Your task to perform on an android device: Search for the best rated lawnmower on Lowes.com Image 0: 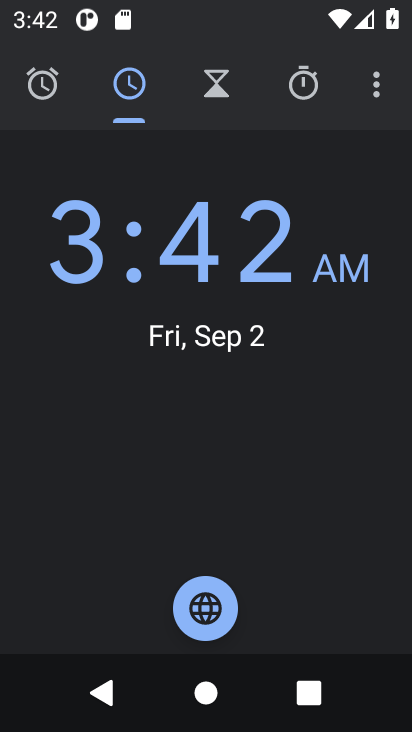
Step 0: press home button
Your task to perform on an android device: Search for the best rated lawnmower on Lowes.com Image 1: 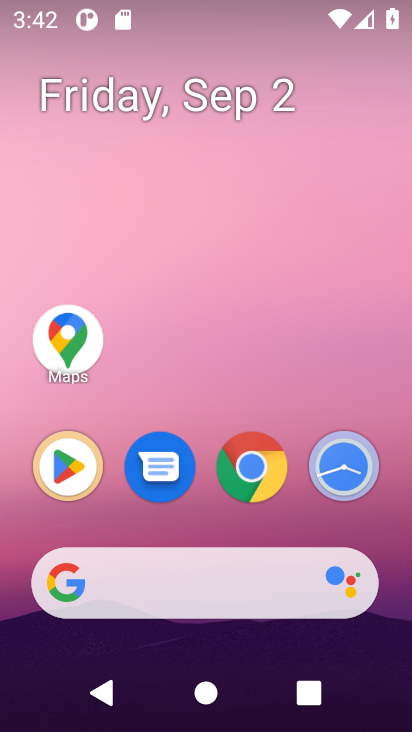
Step 1: click (202, 180)
Your task to perform on an android device: Search for the best rated lawnmower on Lowes.com Image 2: 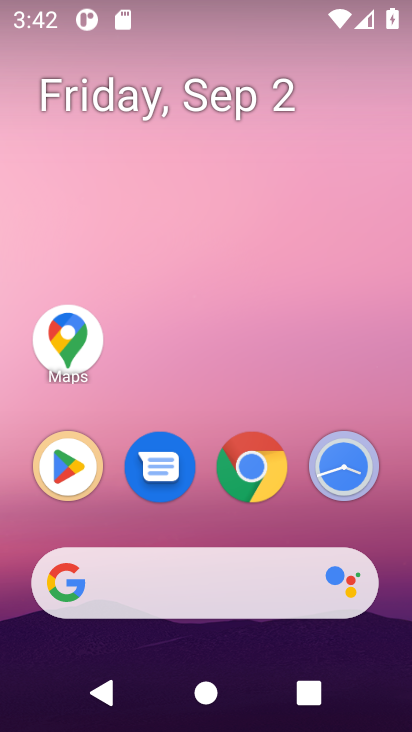
Step 2: drag from (211, 500) to (194, 264)
Your task to perform on an android device: Search for the best rated lawnmower on Lowes.com Image 3: 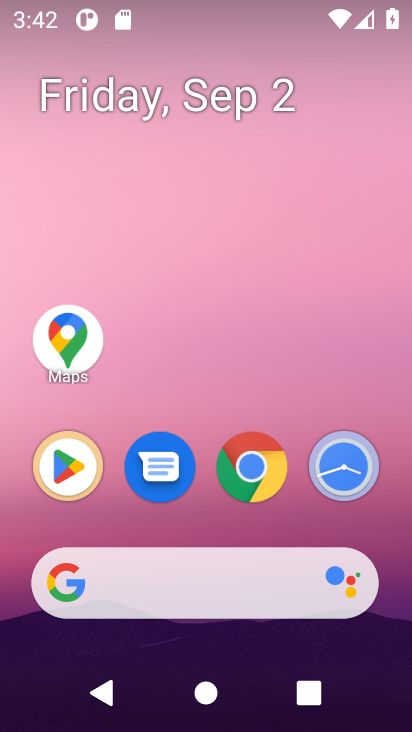
Step 3: click (204, 170)
Your task to perform on an android device: Search for the best rated lawnmower on Lowes.com Image 4: 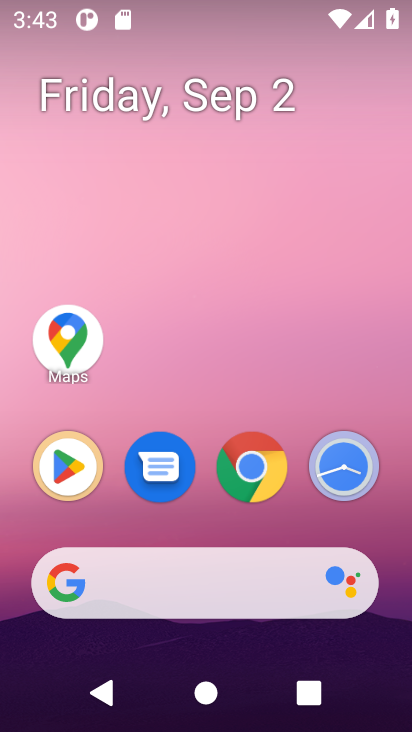
Step 4: drag from (143, 535) to (160, 216)
Your task to perform on an android device: Search for the best rated lawnmower on Lowes.com Image 5: 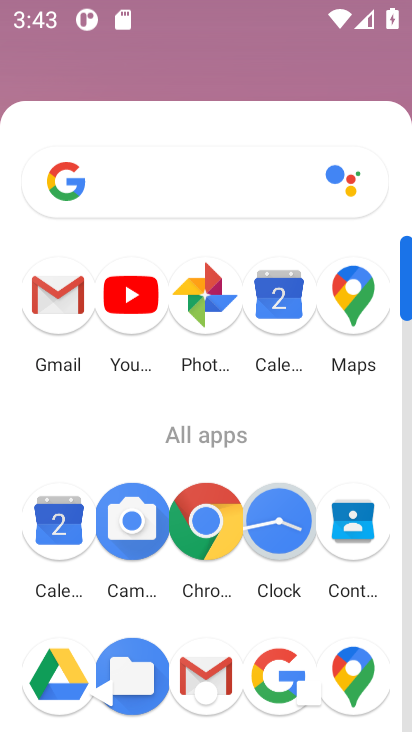
Step 5: drag from (153, 532) to (208, 215)
Your task to perform on an android device: Search for the best rated lawnmower on Lowes.com Image 6: 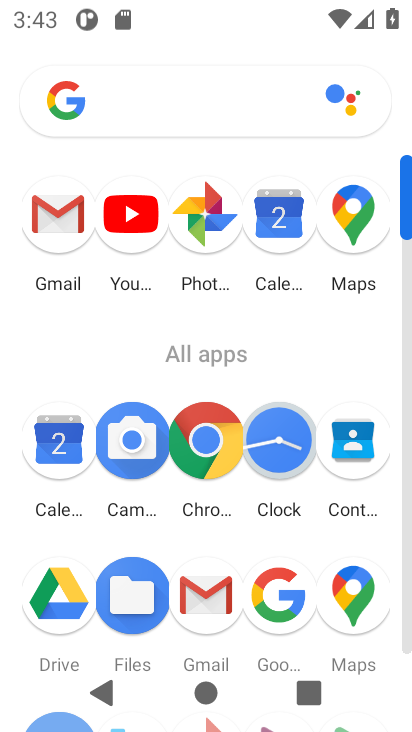
Step 6: click (276, 592)
Your task to perform on an android device: Search for the best rated lawnmower on Lowes.com Image 7: 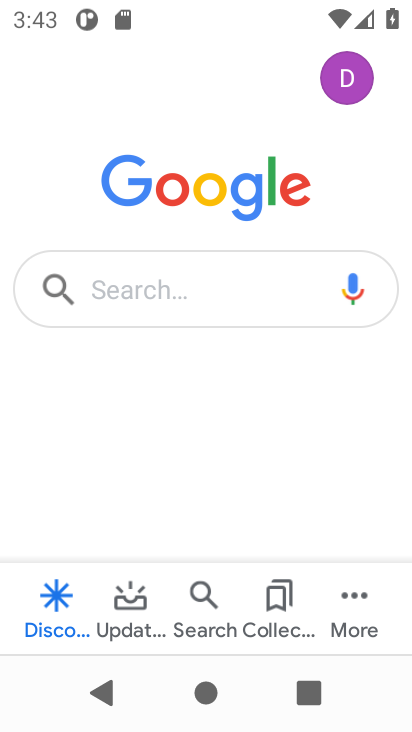
Step 7: click (208, 290)
Your task to perform on an android device: Search for the best rated lawnmower on Lowes.com Image 8: 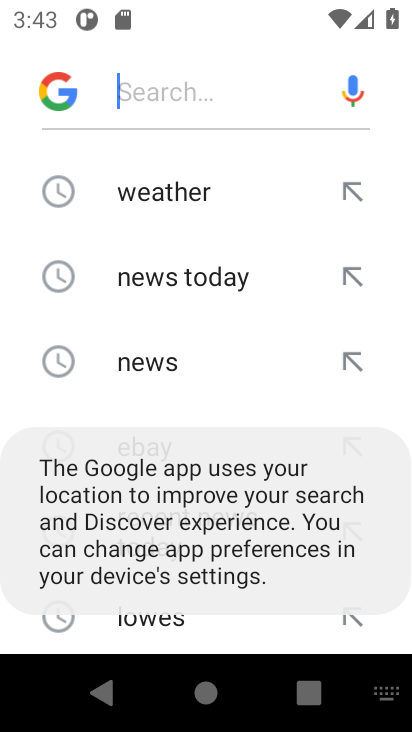
Step 8: type "r the best rated lawnmower on Lowes.com "
Your task to perform on an android device: Search for the best rated lawnmower on Lowes.com Image 9: 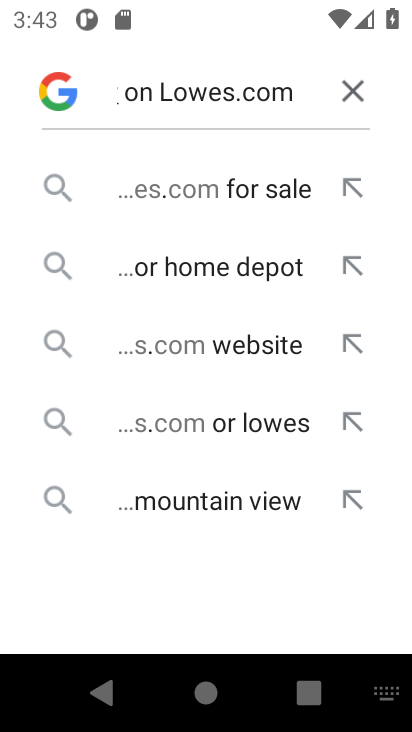
Step 9: click (236, 418)
Your task to perform on an android device: Search for the best rated lawnmower on Lowes.com Image 10: 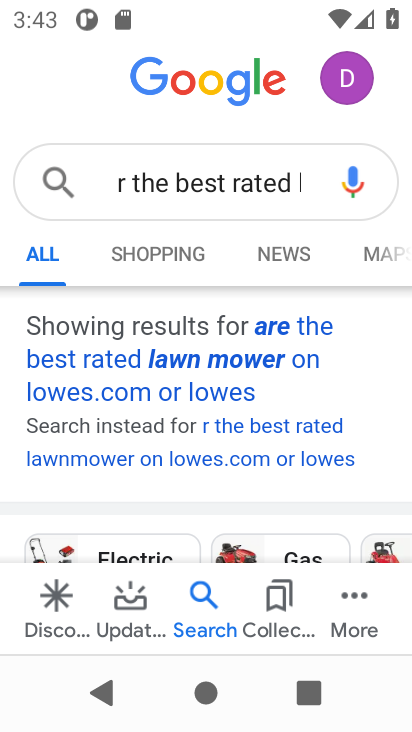
Step 10: task complete